Your task to perform on an android device: allow notifications from all sites in the chrome app Image 0: 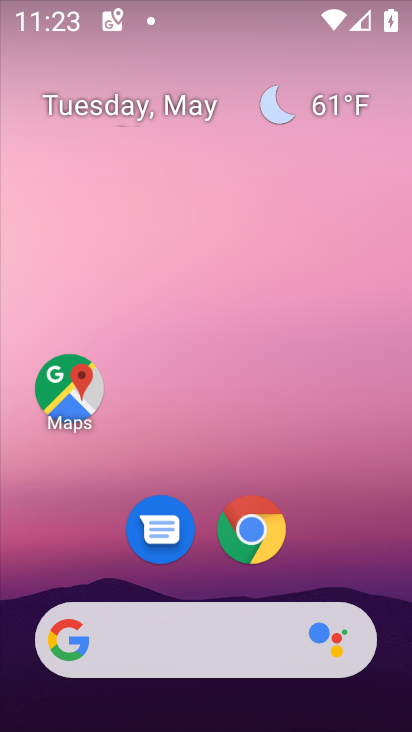
Step 0: click (276, 546)
Your task to perform on an android device: allow notifications from all sites in the chrome app Image 1: 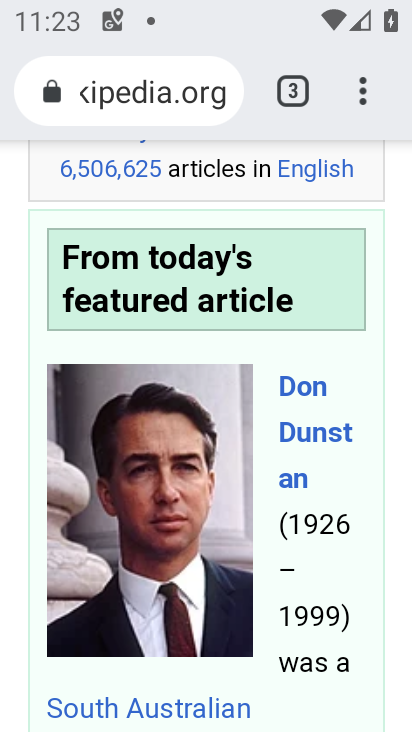
Step 1: click (367, 83)
Your task to perform on an android device: allow notifications from all sites in the chrome app Image 2: 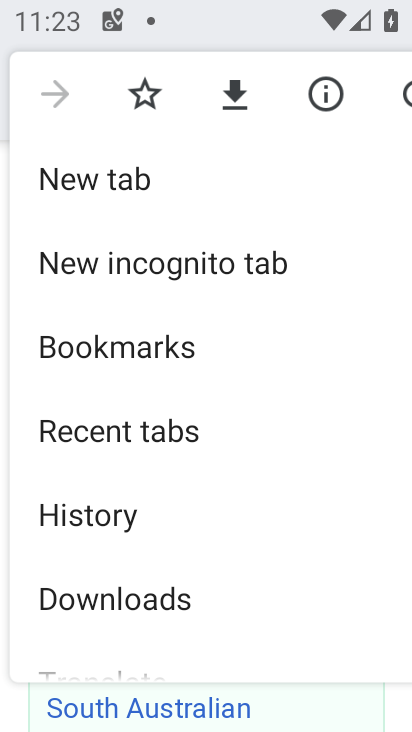
Step 2: drag from (186, 533) to (81, 131)
Your task to perform on an android device: allow notifications from all sites in the chrome app Image 3: 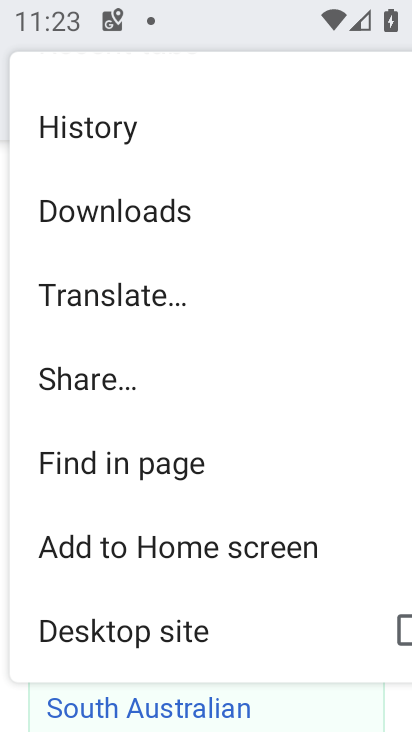
Step 3: drag from (134, 507) to (110, 267)
Your task to perform on an android device: allow notifications from all sites in the chrome app Image 4: 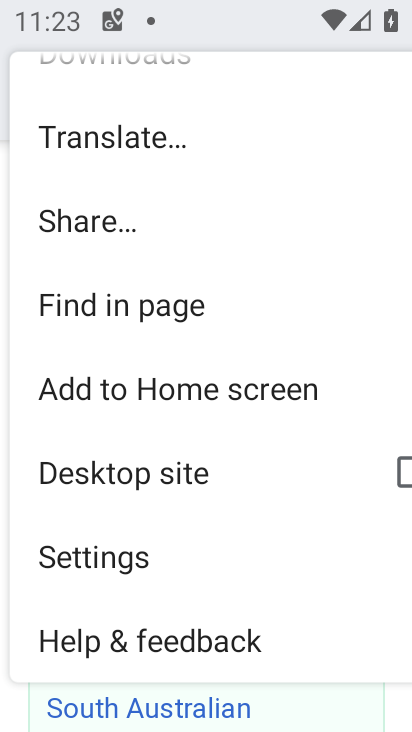
Step 4: click (122, 553)
Your task to perform on an android device: allow notifications from all sites in the chrome app Image 5: 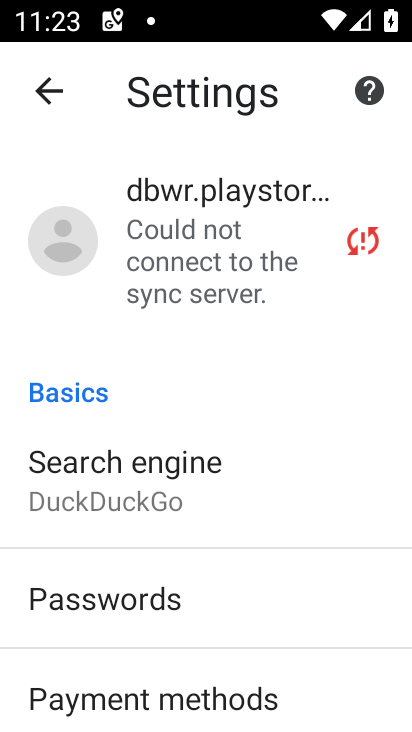
Step 5: drag from (221, 659) to (170, 204)
Your task to perform on an android device: allow notifications from all sites in the chrome app Image 6: 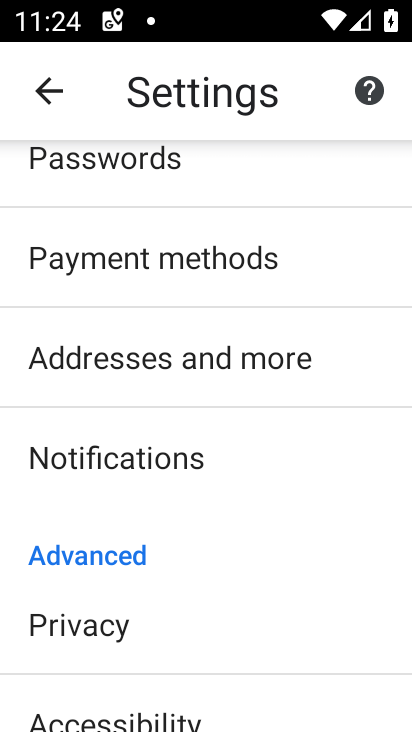
Step 6: click (126, 447)
Your task to perform on an android device: allow notifications from all sites in the chrome app Image 7: 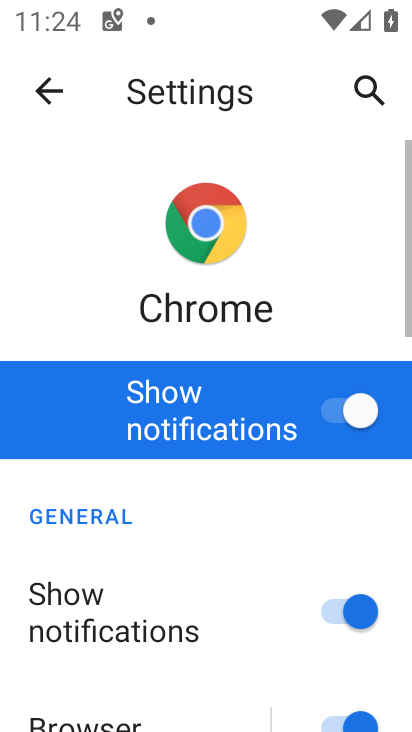
Step 7: task complete